Your task to perform on an android device: change text size in settings app Image 0: 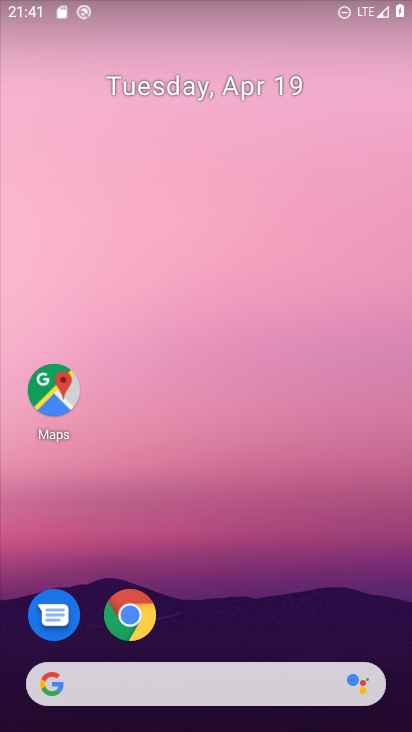
Step 0: drag from (244, 644) to (293, 0)
Your task to perform on an android device: change text size in settings app Image 1: 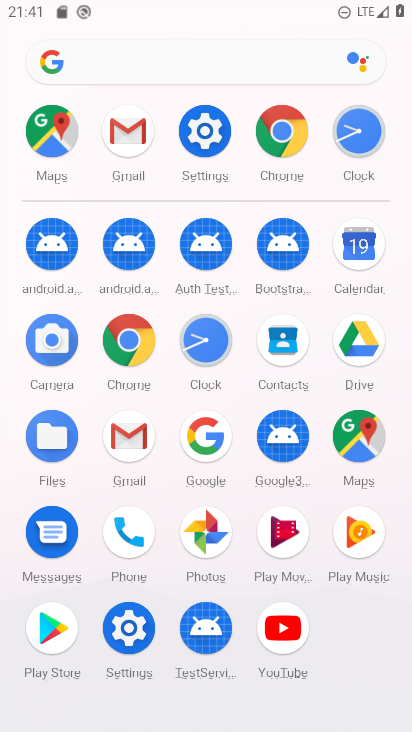
Step 1: click (133, 634)
Your task to perform on an android device: change text size in settings app Image 2: 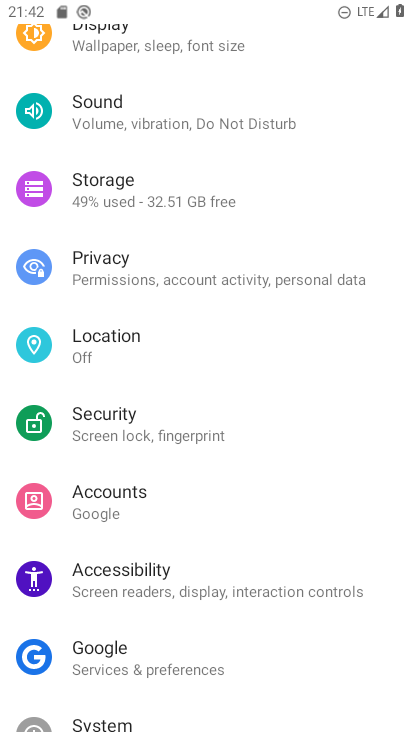
Step 2: click (154, 44)
Your task to perform on an android device: change text size in settings app Image 3: 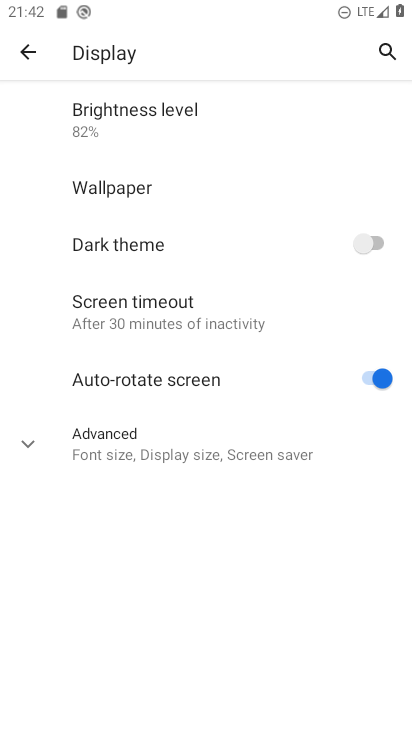
Step 3: click (200, 448)
Your task to perform on an android device: change text size in settings app Image 4: 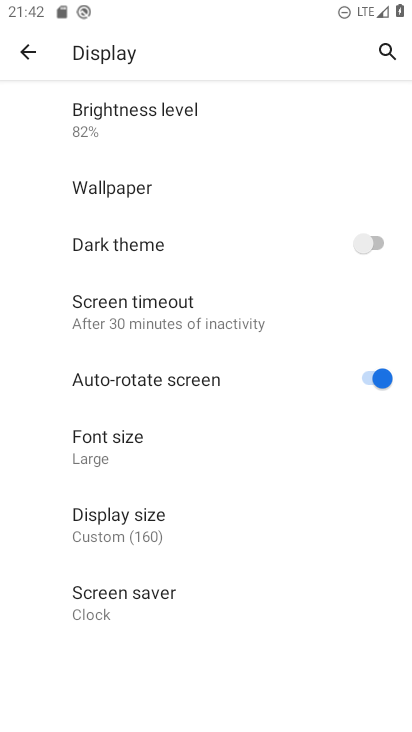
Step 4: click (168, 450)
Your task to perform on an android device: change text size in settings app Image 5: 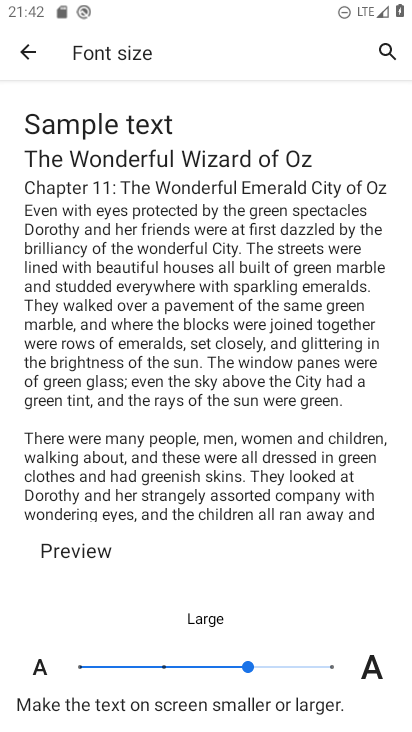
Step 5: click (79, 671)
Your task to perform on an android device: change text size in settings app Image 6: 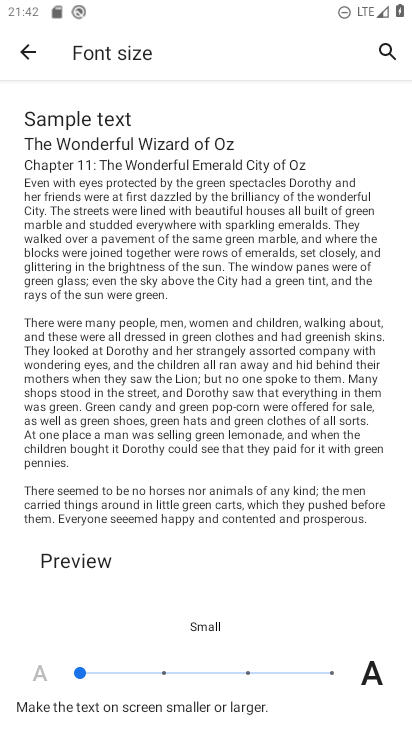
Step 6: task complete